Your task to perform on an android device: change alarm snooze length Image 0: 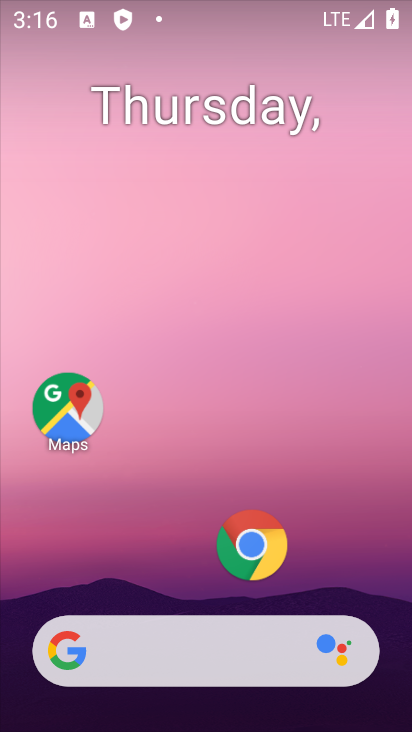
Step 0: drag from (281, 642) to (306, 14)
Your task to perform on an android device: change alarm snooze length Image 1: 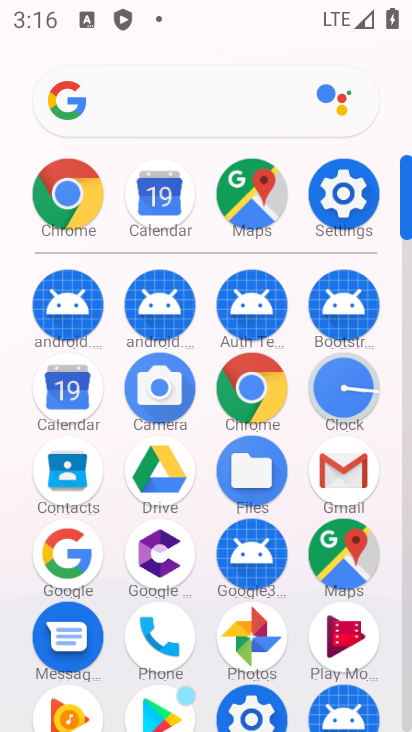
Step 1: click (327, 387)
Your task to perform on an android device: change alarm snooze length Image 2: 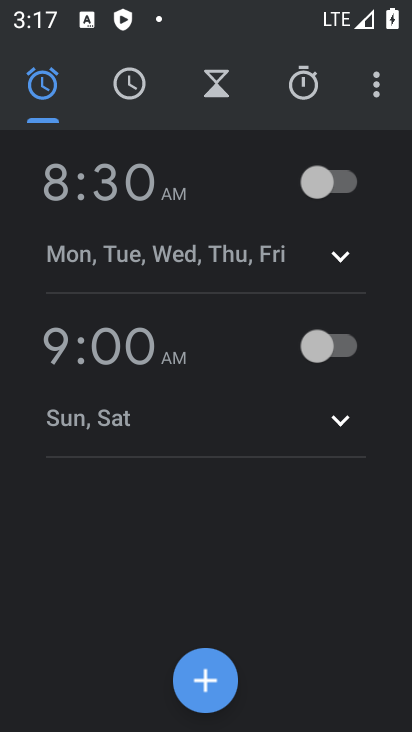
Step 2: click (375, 84)
Your task to perform on an android device: change alarm snooze length Image 3: 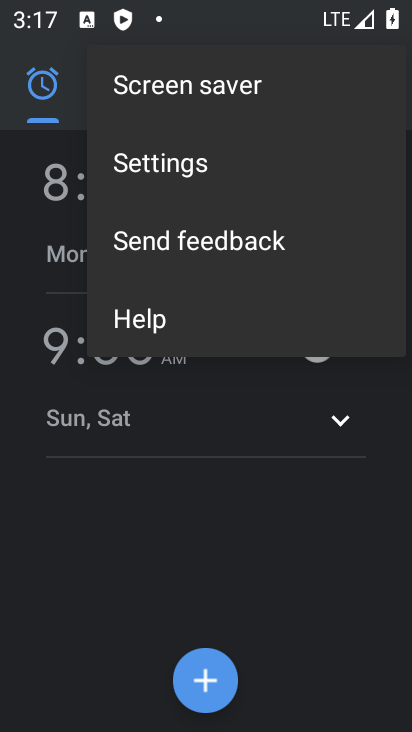
Step 3: click (193, 176)
Your task to perform on an android device: change alarm snooze length Image 4: 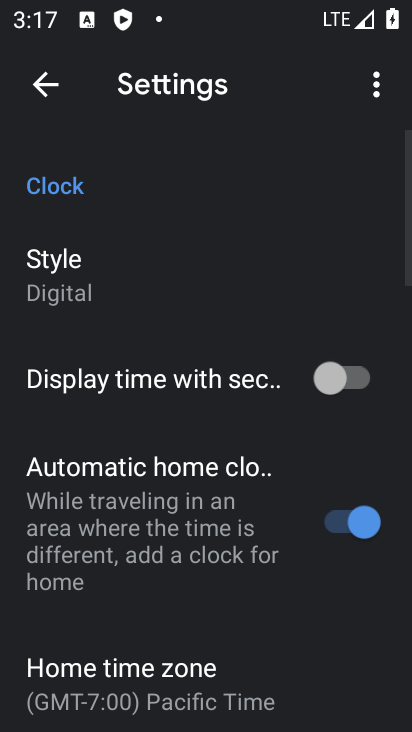
Step 4: drag from (261, 612) to (253, 104)
Your task to perform on an android device: change alarm snooze length Image 5: 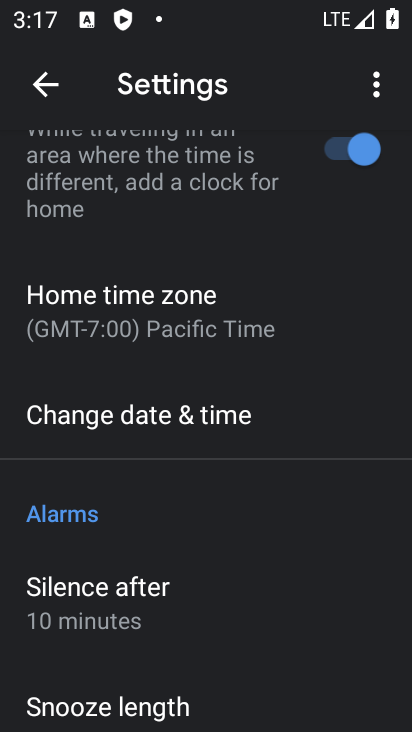
Step 5: drag from (171, 615) to (193, 299)
Your task to perform on an android device: change alarm snooze length Image 6: 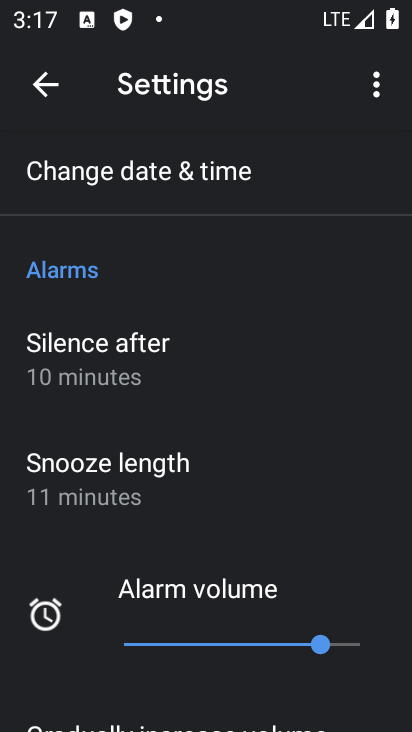
Step 6: click (190, 482)
Your task to perform on an android device: change alarm snooze length Image 7: 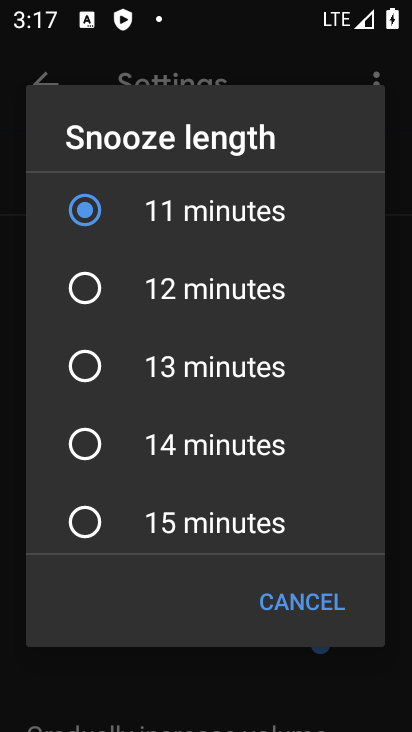
Step 7: click (95, 298)
Your task to perform on an android device: change alarm snooze length Image 8: 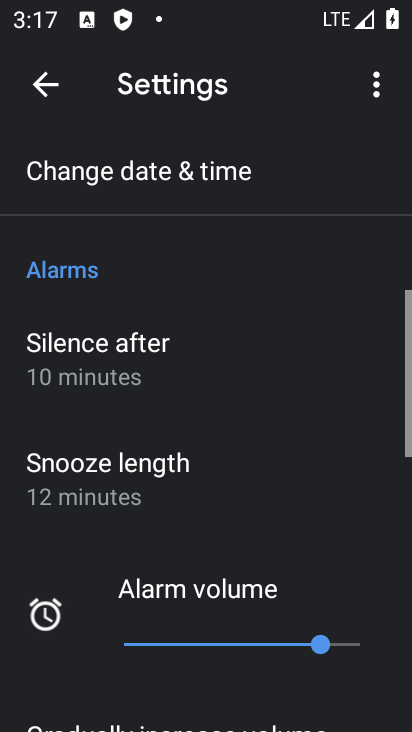
Step 8: task complete